Your task to perform on an android device: Open the stopwatch Image 0: 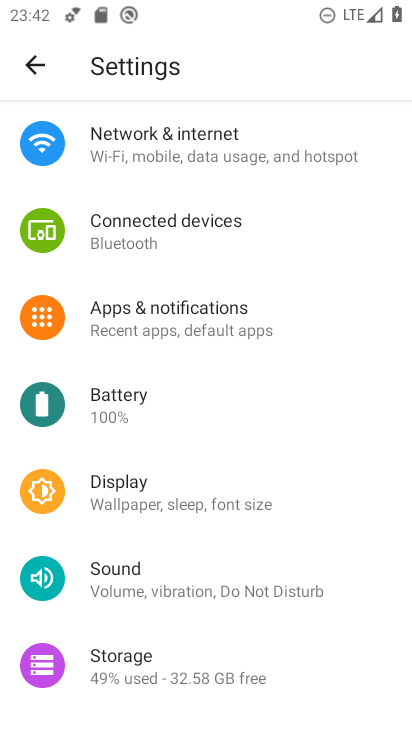
Step 0: press home button
Your task to perform on an android device: Open the stopwatch Image 1: 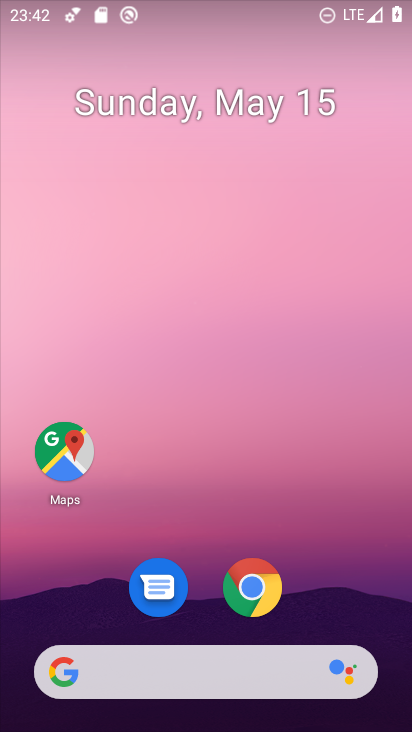
Step 1: drag from (200, 627) to (174, 248)
Your task to perform on an android device: Open the stopwatch Image 2: 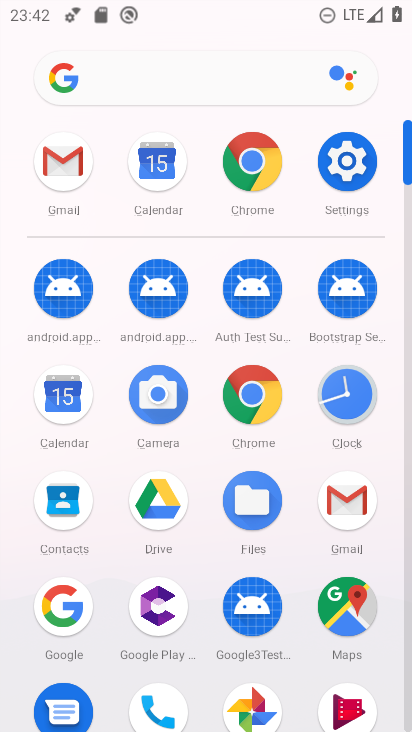
Step 2: click (333, 383)
Your task to perform on an android device: Open the stopwatch Image 3: 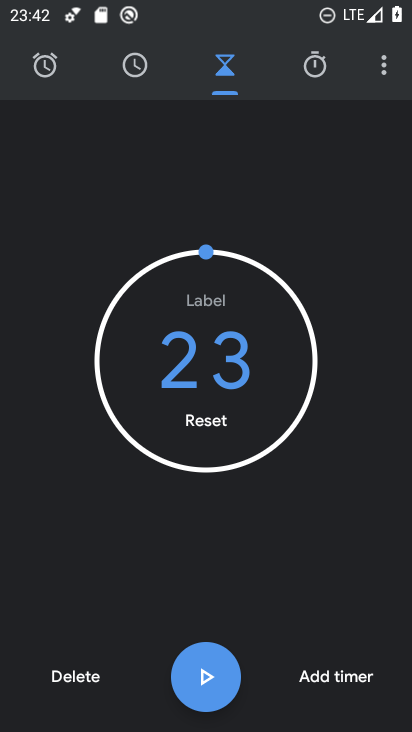
Step 3: click (328, 62)
Your task to perform on an android device: Open the stopwatch Image 4: 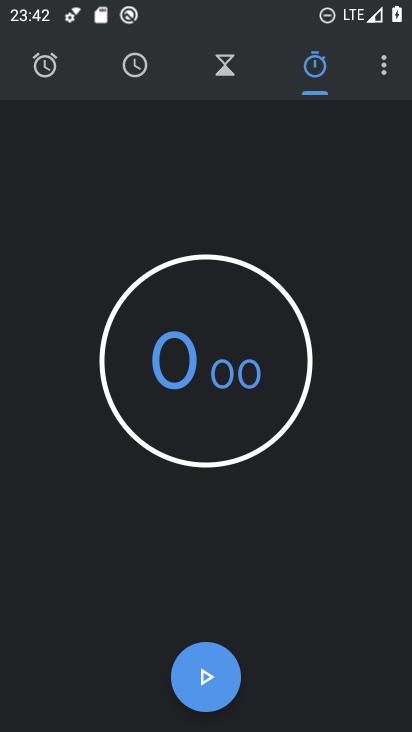
Step 4: click (205, 688)
Your task to perform on an android device: Open the stopwatch Image 5: 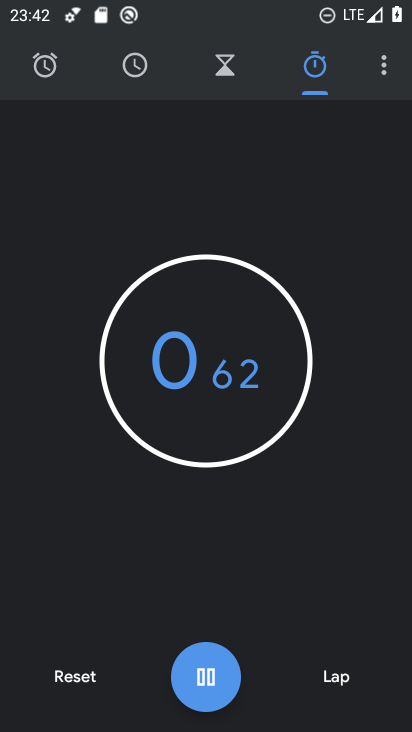
Step 5: task complete